Your task to perform on an android device: Open battery settings Image 0: 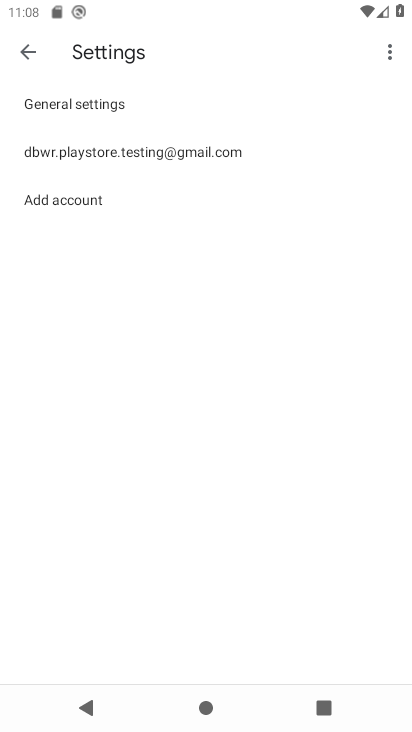
Step 0: press home button
Your task to perform on an android device: Open battery settings Image 1: 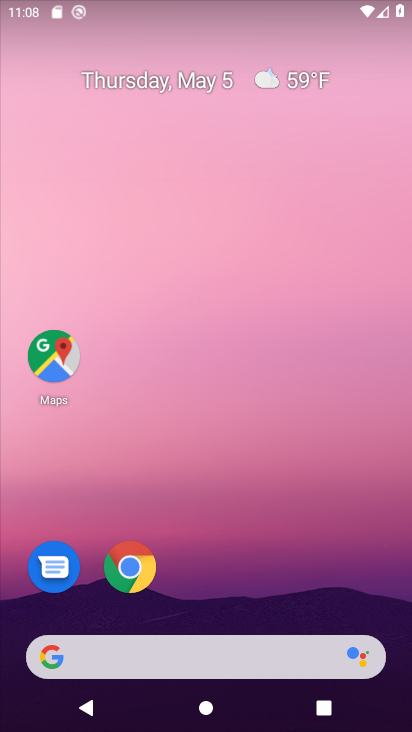
Step 1: drag from (272, 461) to (280, 56)
Your task to perform on an android device: Open battery settings Image 2: 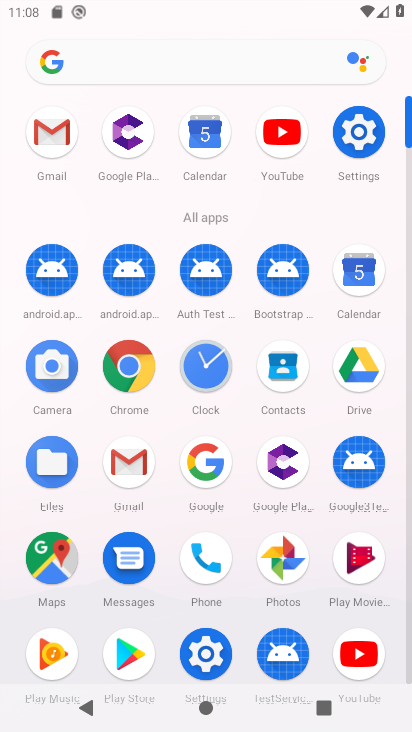
Step 2: click (368, 130)
Your task to perform on an android device: Open battery settings Image 3: 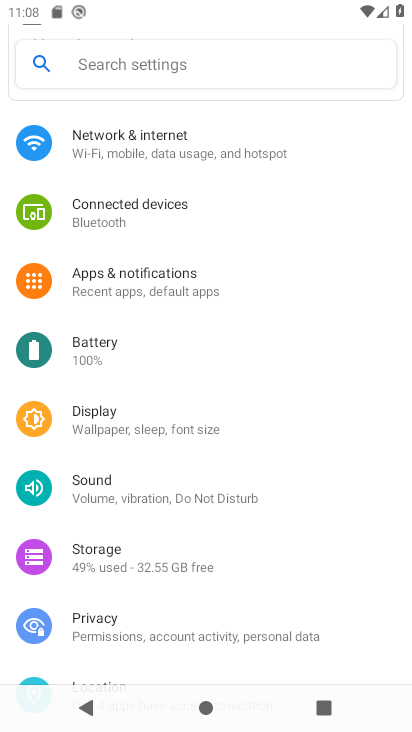
Step 3: click (102, 350)
Your task to perform on an android device: Open battery settings Image 4: 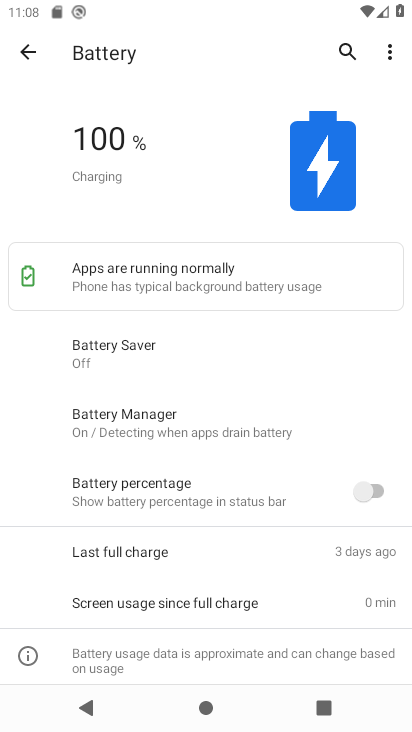
Step 4: task complete